Your task to perform on an android device: choose inbox layout in the gmail app Image 0: 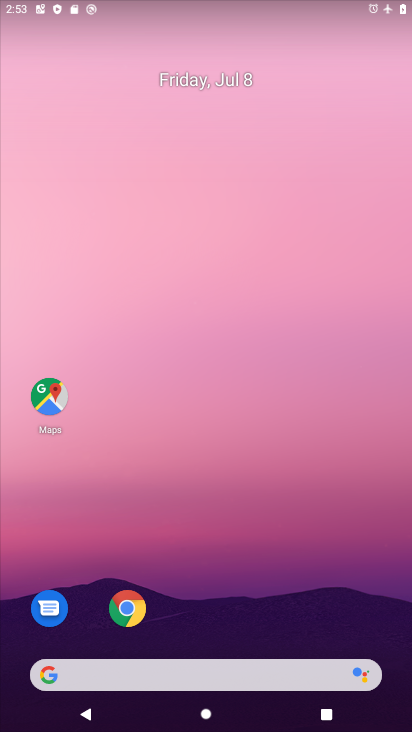
Step 0: drag from (295, 675) to (251, 98)
Your task to perform on an android device: choose inbox layout in the gmail app Image 1: 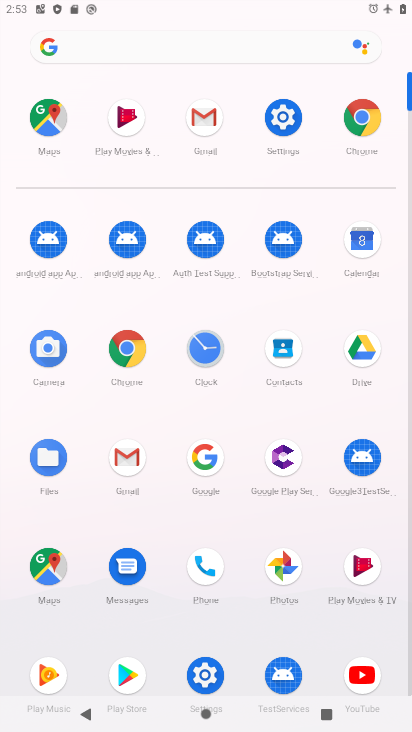
Step 1: click (121, 445)
Your task to perform on an android device: choose inbox layout in the gmail app Image 2: 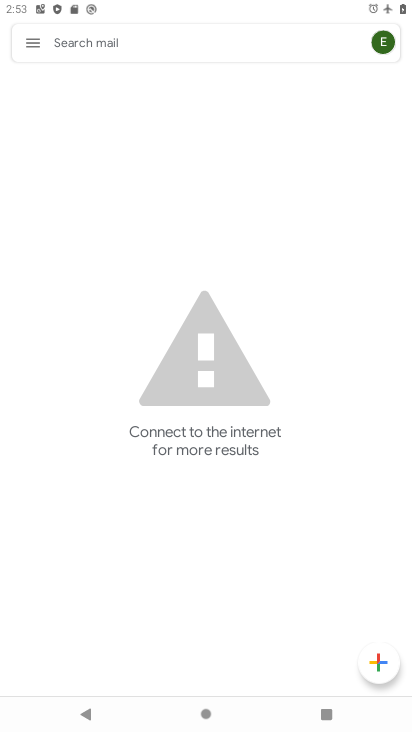
Step 2: click (39, 44)
Your task to perform on an android device: choose inbox layout in the gmail app Image 3: 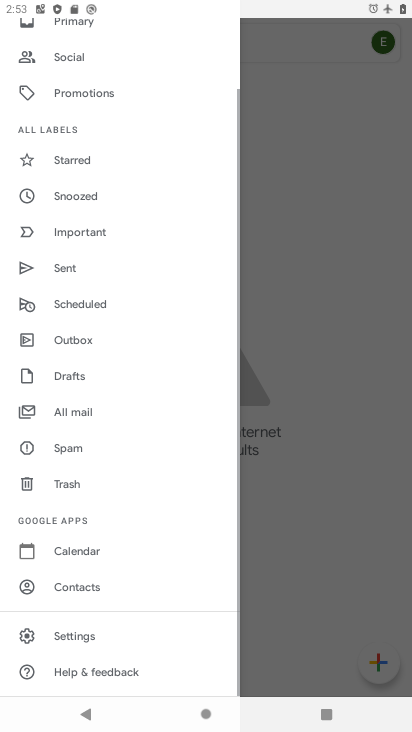
Step 3: click (78, 629)
Your task to perform on an android device: choose inbox layout in the gmail app Image 4: 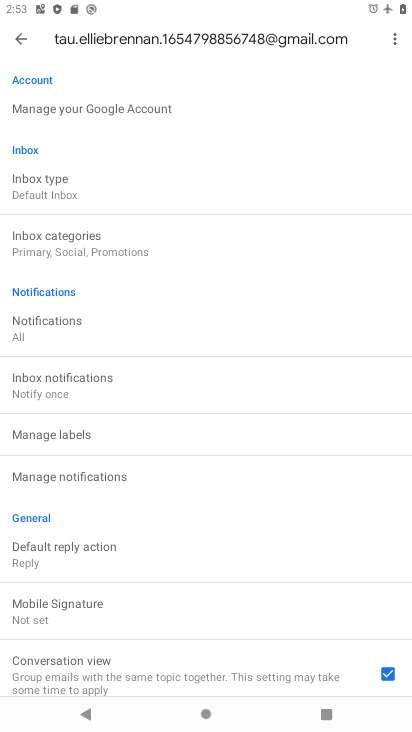
Step 4: click (59, 192)
Your task to perform on an android device: choose inbox layout in the gmail app Image 5: 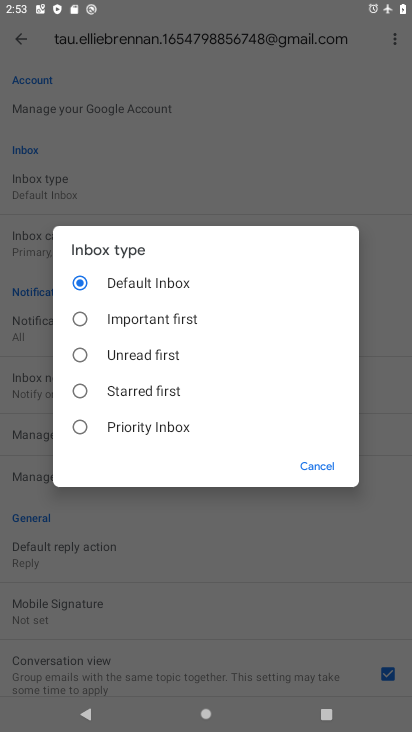
Step 5: click (84, 323)
Your task to perform on an android device: choose inbox layout in the gmail app Image 6: 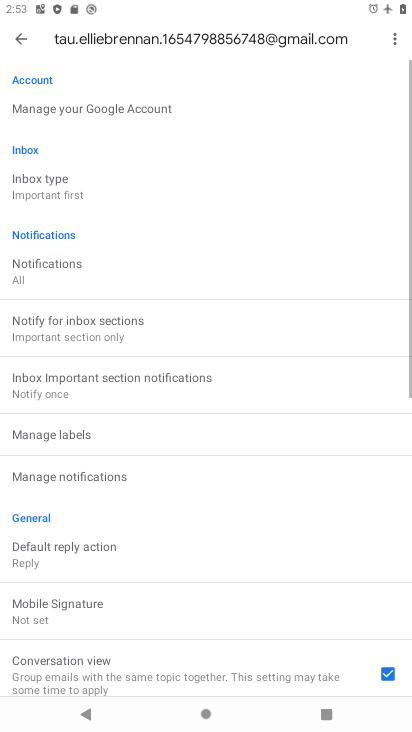
Step 6: task complete